Your task to perform on an android device: Open Wikipedia Image 0: 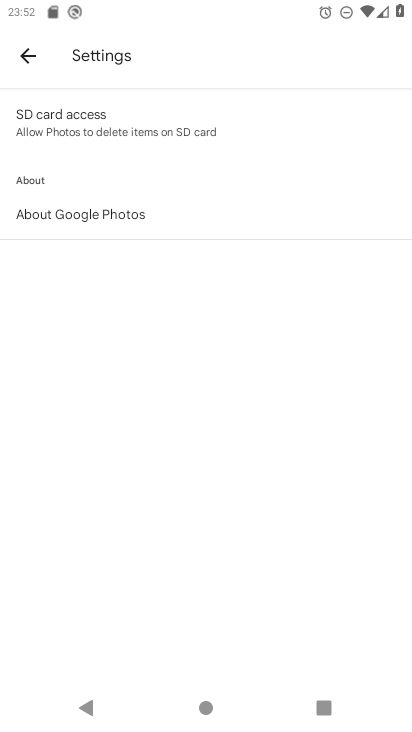
Step 0: press home button
Your task to perform on an android device: Open Wikipedia Image 1: 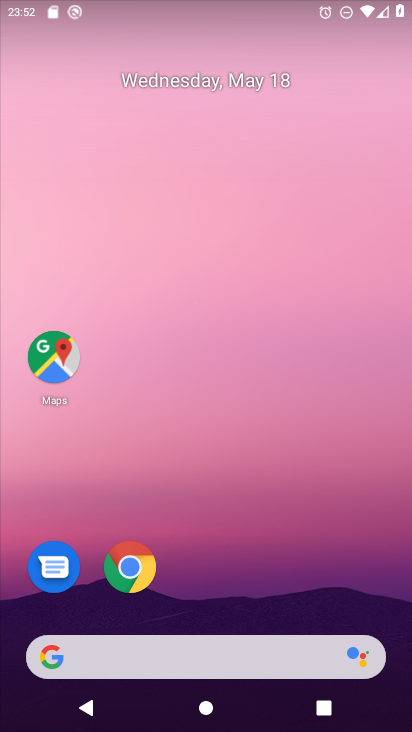
Step 1: drag from (252, 668) to (352, 128)
Your task to perform on an android device: Open Wikipedia Image 2: 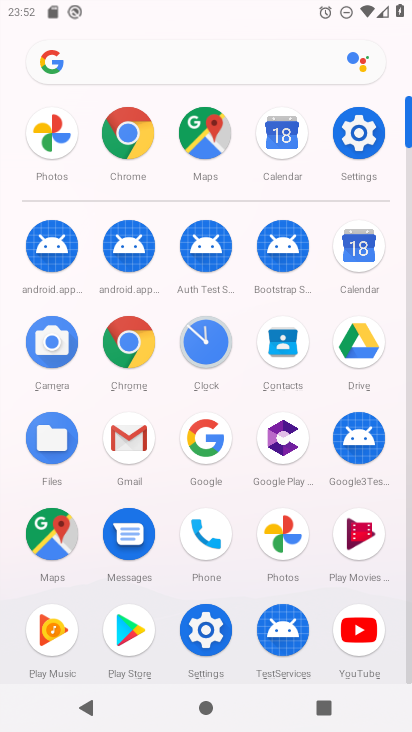
Step 2: click (359, 134)
Your task to perform on an android device: Open Wikipedia Image 3: 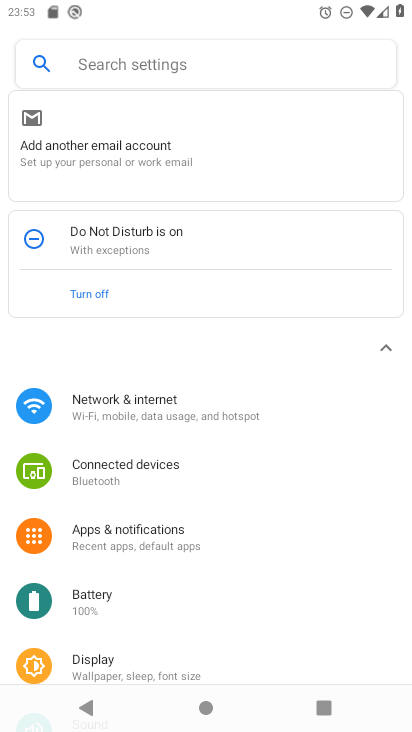
Step 3: press home button
Your task to perform on an android device: Open Wikipedia Image 4: 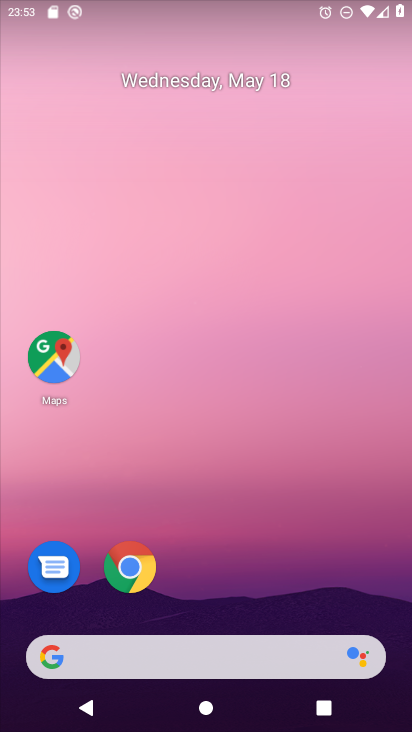
Step 4: drag from (241, 683) to (307, 174)
Your task to perform on an android device: Open Wikipedia Image 5: 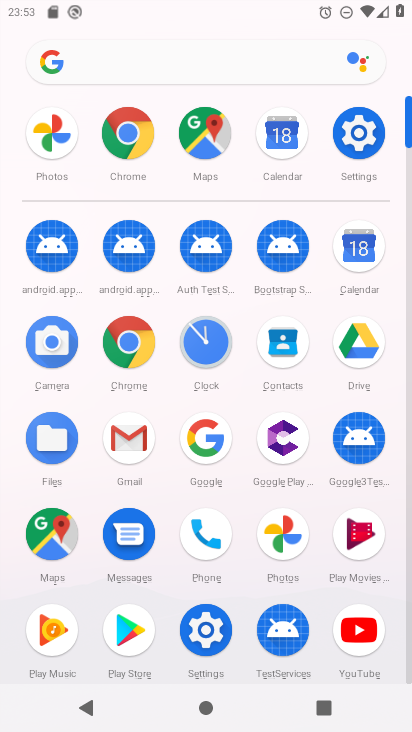
Step 5: click (141, 128)
Your task to perform on an android device: Open Wikipedia Image 6: 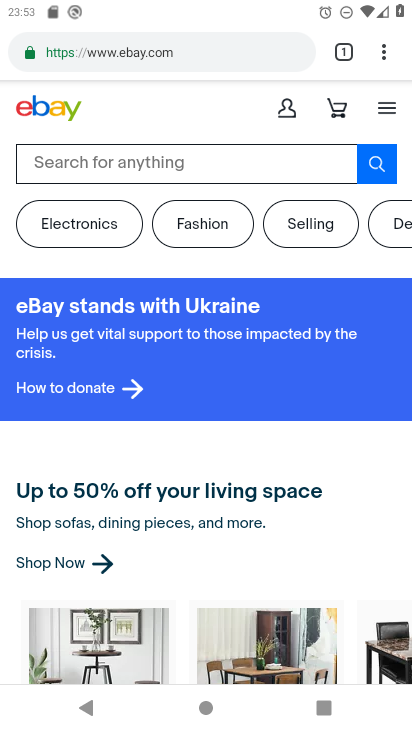
Step 6: click (380, 58)
Your task to perform on an android device: Open Wikipedia Image 7: 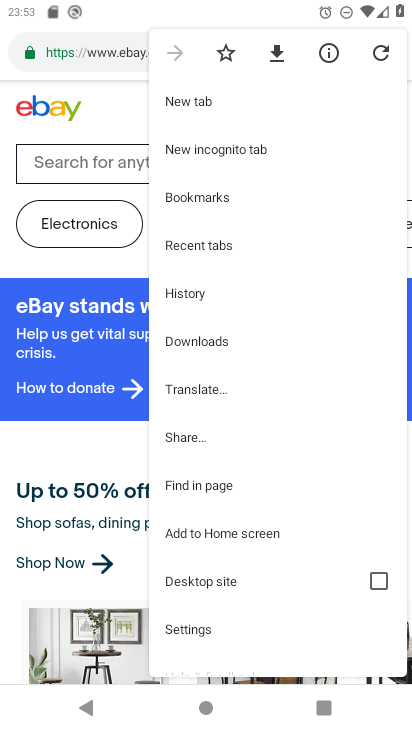
Step 7: click (201, 98)
Your task to perform on an android device: Open Wikipedia Image 8: 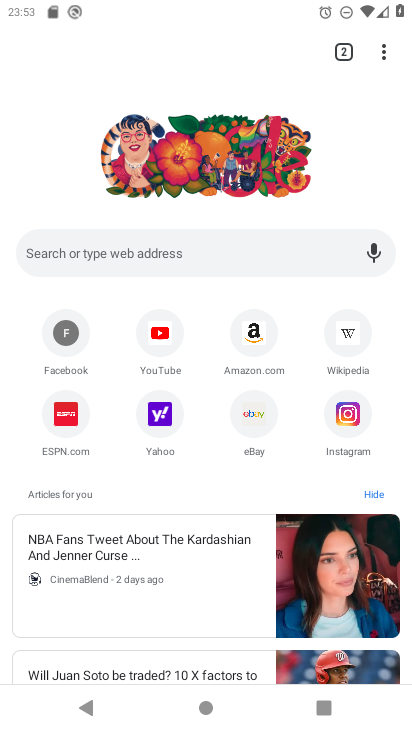
Step 8: click (349, 334)
Your task to perform on an android device: Open Wikipedia Image 9: 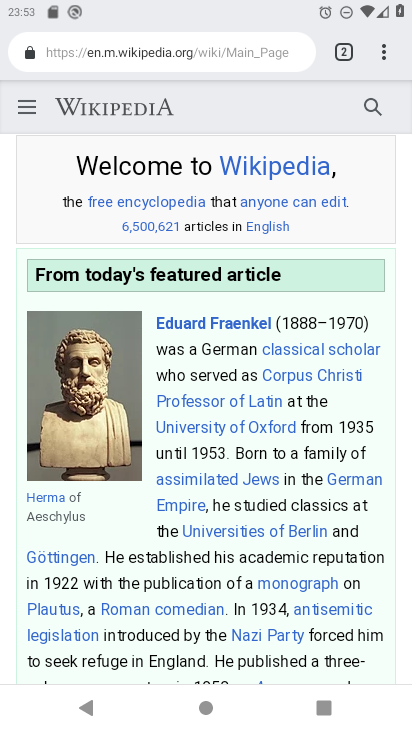
Step 9: task complete